Your task to perform on an android device: remove spam from my inbox in the gmail app Image 0: 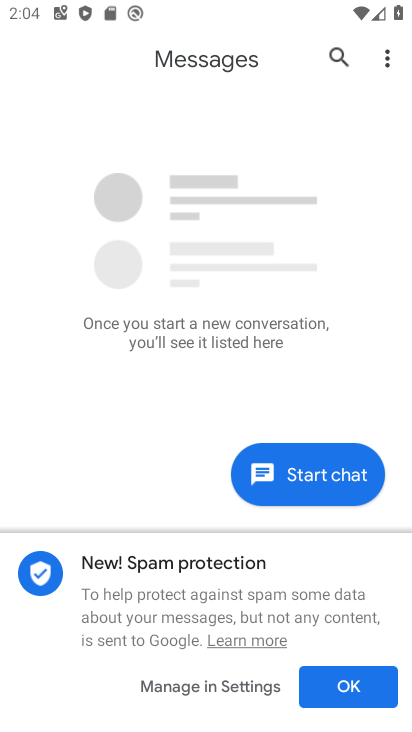
Step 0: press home button
Your task to perform on an android device: remove spam from my inbox in the gmail app Image 1: 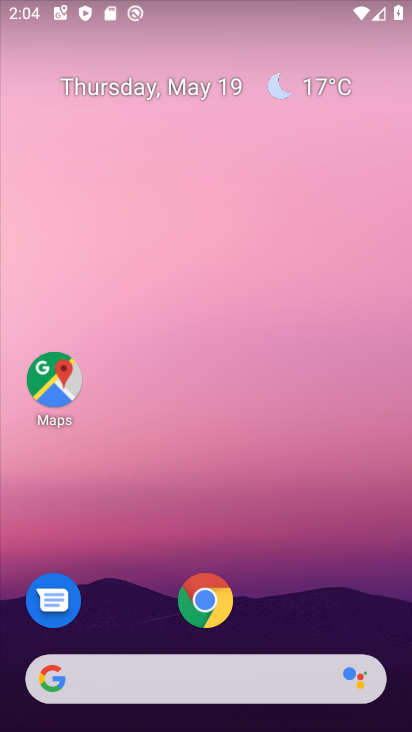
Step 1: drag from (280, 622) to (266, 171)
Your task to perform on an android device: remove spam from my inbox in the gmail app Image 2: 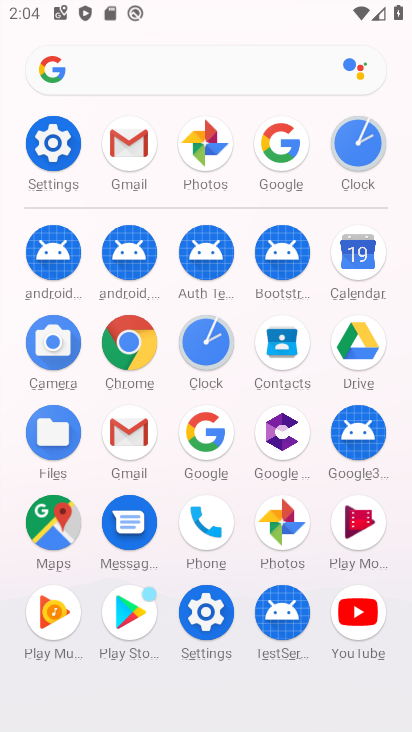
Step 2: click (134, 440)
Your task to perform on an android device: remove spam from my inbox in the gmail app Image 3: 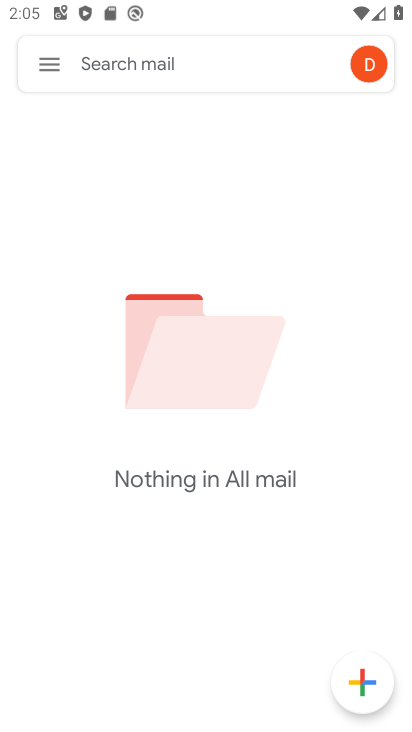
Step 3: click (55, 71)
Your task to perform on an android device: remove spam from my inbox in the gmail app Image 4: 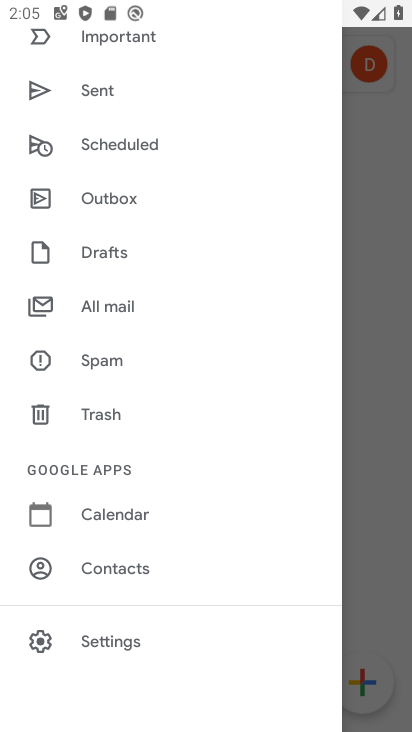
Step 4: click (140, 356)
Your task to perform on an android device: remove spam from my inbox in the gmail app Image 5: 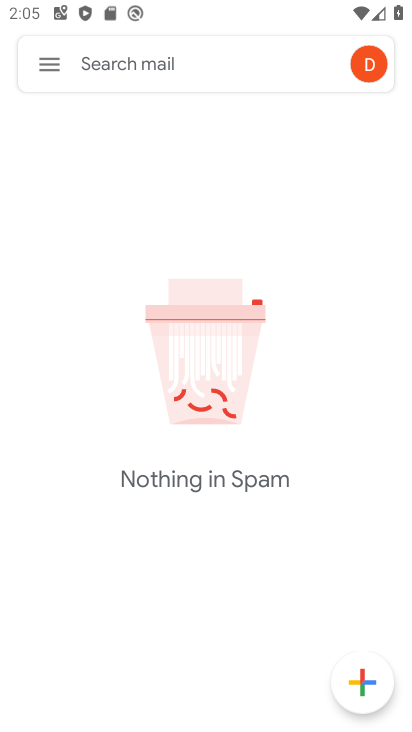
Step 5: task complete